Your task to perform on an android device: stop showing notifications on the lock screen Image 0: 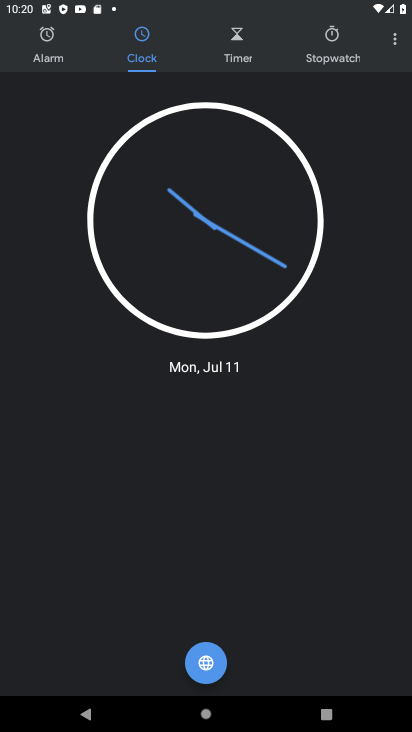
Step 0: press home button
Your task to perform on an android device: stop showing notifications on the lock screen Image 1: 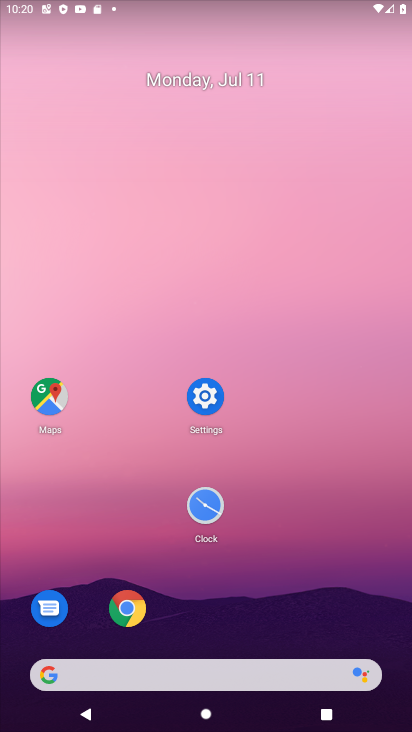
Step 1: click (203, 391)
Your task to perform on an android device: stop showing notifications on the lock screen Image 2: 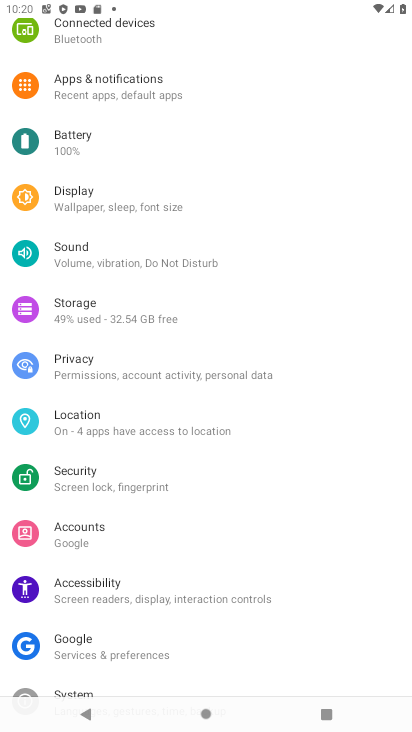
Step 2: click (106, 81)
Your task to perform on an android device: stop showing notifications on the lock screen Image 3: 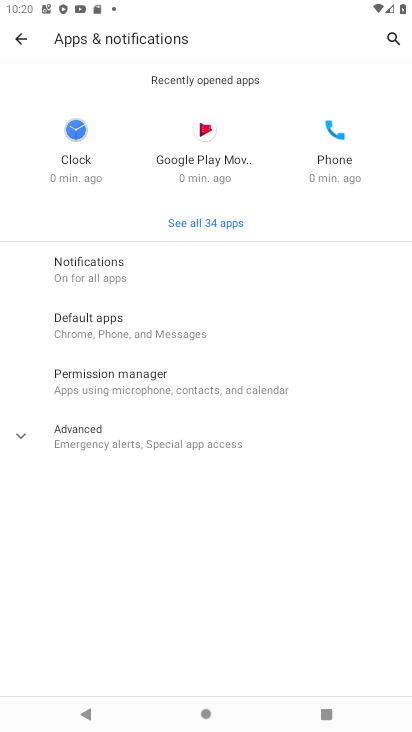
Step 3: click (88, 266)
Your task to perform on an android device: stop showing notifications on the lock screen Image 4: 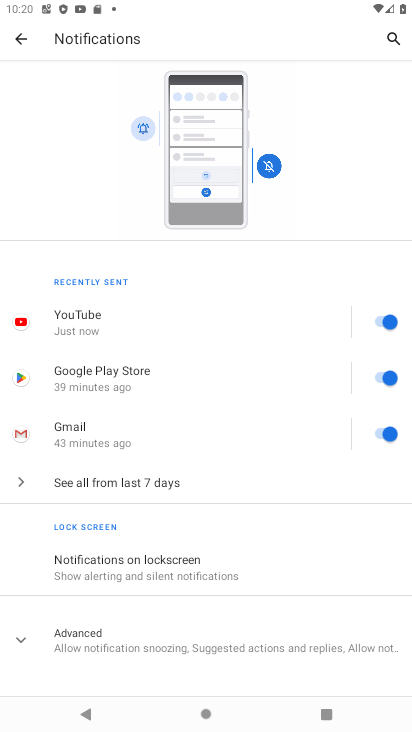
Step 4: click (94, 558)
Your task to perform on an android device: stop showing notifications on the lock screen Image 5: 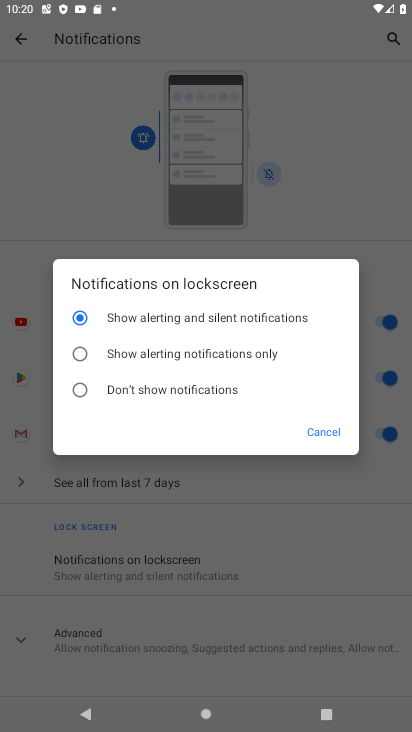
Step 5: click (83, 390)
Your task to perform on an android device: stop showing notifications on the lock screen Image 6: 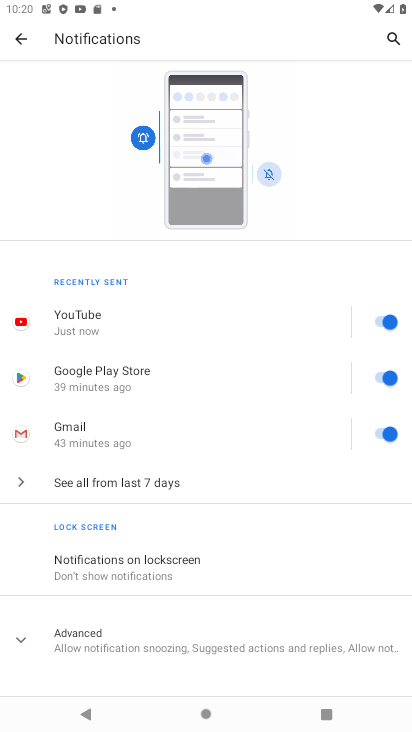
Step 6: task complete